Your task to perform on an android device: Open the calendar and show me this week's events Image 0: 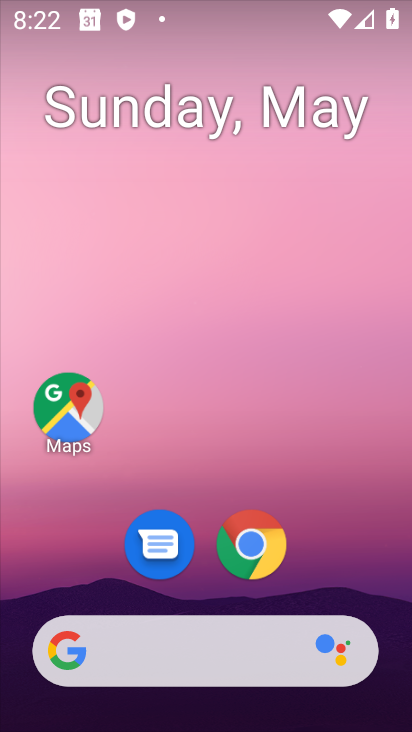
Step 0: drag from (363, 596) to (355, 123)
Your task to perform on an android device: Open the calendar and show me this week's events Image 1: 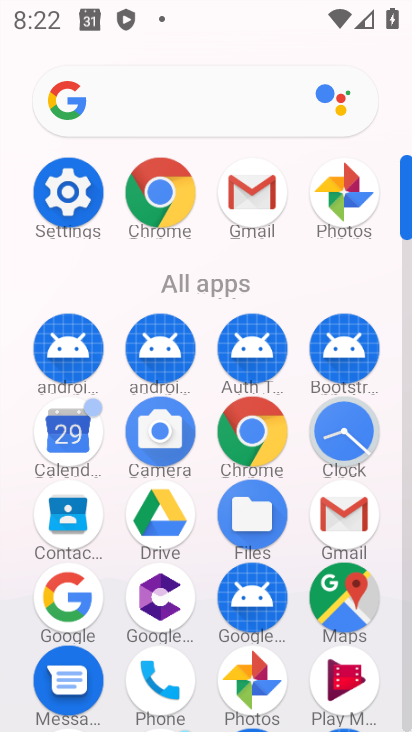
Step 1: click (44, 443)
Your task to perform on an android device: Open the calendar and show me this week's events Image 2: 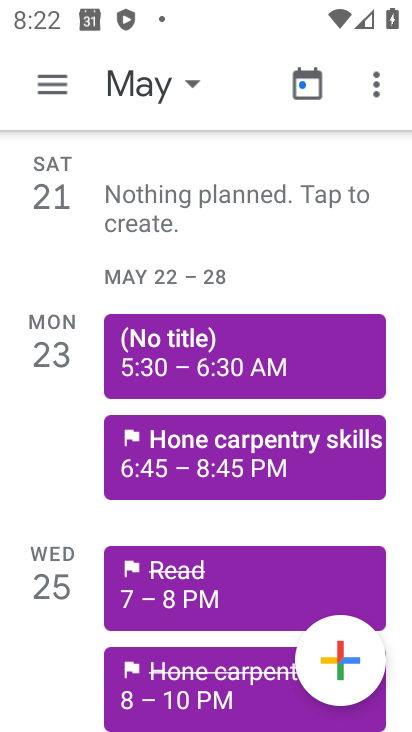
Step 2: click (166, 97)
Your task to perform on an android device: Open the calendar and show me this week's events Image 3: 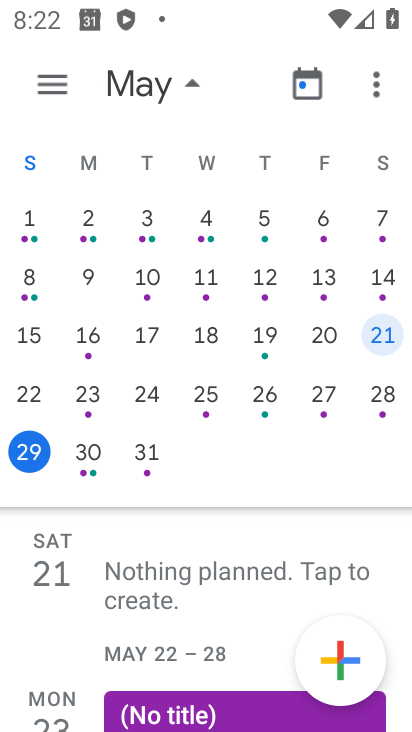
Step 3: drag from (340, 361) to (8, 496)
Your task to perform on an android device: Open the calendar and show me this week's events Image 4: 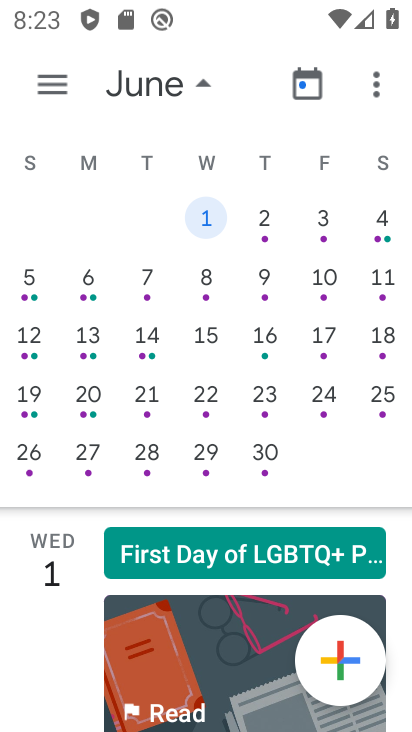
Step 4: click (38, 280)
Your task to perform on an android device: Open the calendar and show me this week's events Image 5: 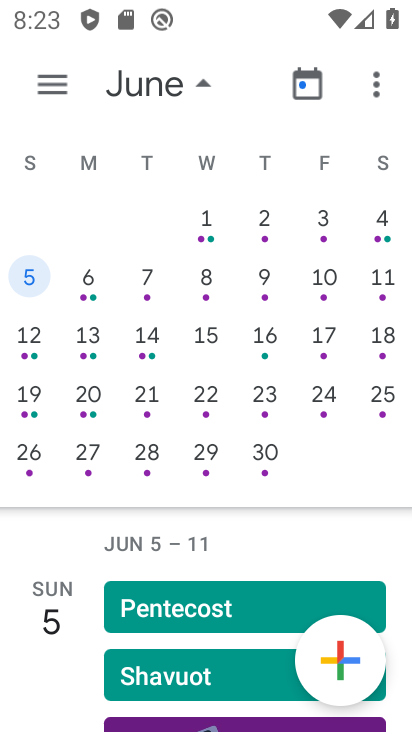
Step 5: task complete